Your task to perform on an android device: Open notification settings Image 0: 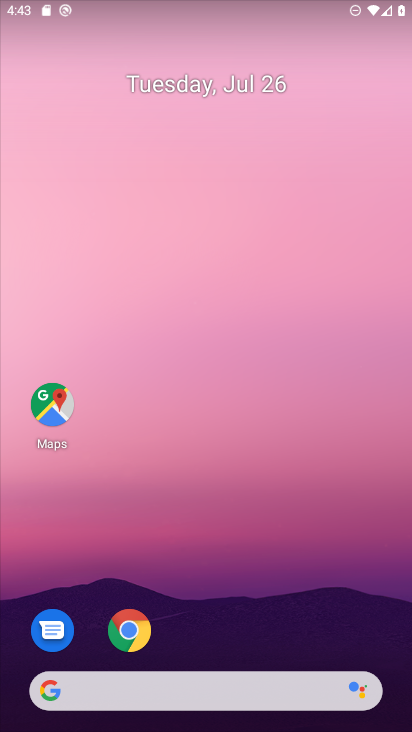
Step 0: drag from (284, 646) to (203, 138)
Your task to perform on an android device: Open notification settings Image 1: 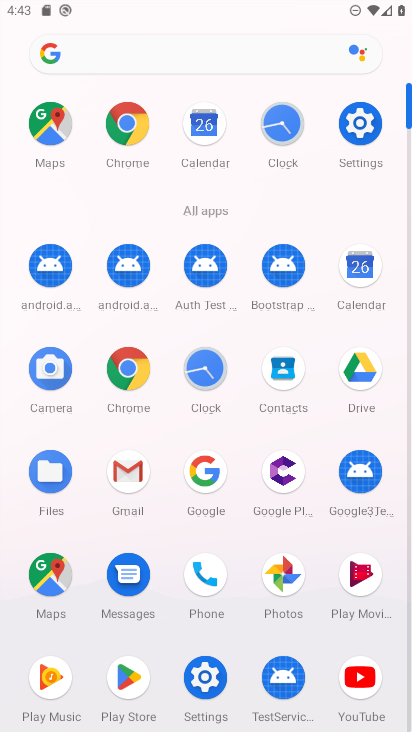
Step 1: click (359, 125)
Your task to perform on an android device: Open notification settings Image 2: 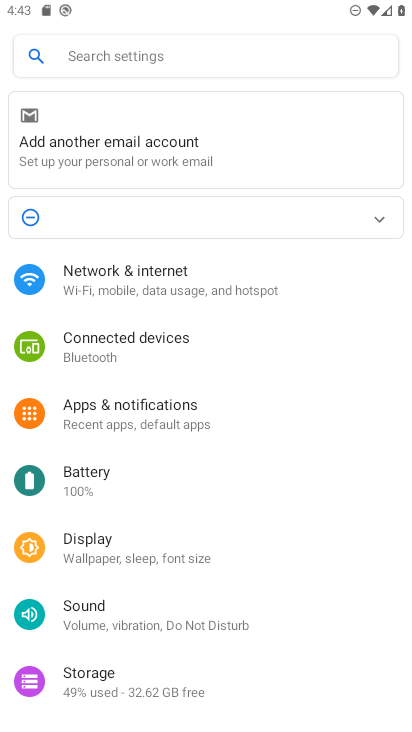
Step 2: click (200, 406)
Your task to perform on an android device: Open notification settings Image 3: 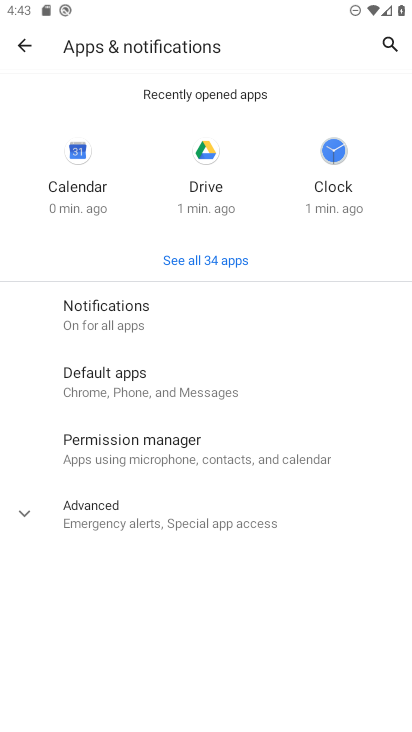
Step 3: click (220, 311)
Your task to perform on an android device: Open notification settings Image 4: 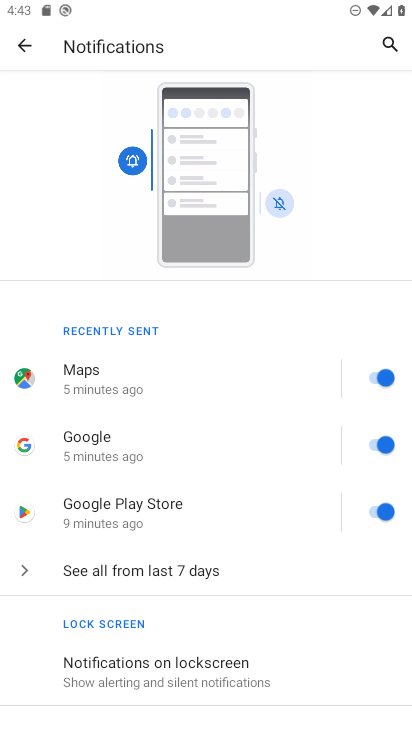
Step 4: task complete